Your task to perform on an android device: make emails show in primary in the gmail app Image 0: 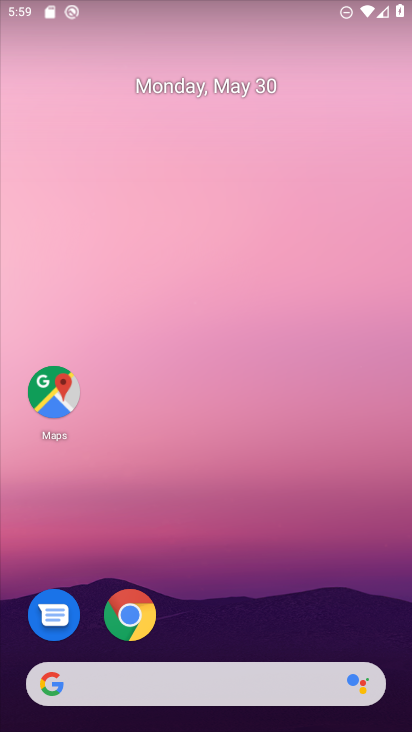
Step 0: drag from (229, 653) to (405, 258)
Your task to perform on an android device: make emails show in primary in the gmail app Image 1: 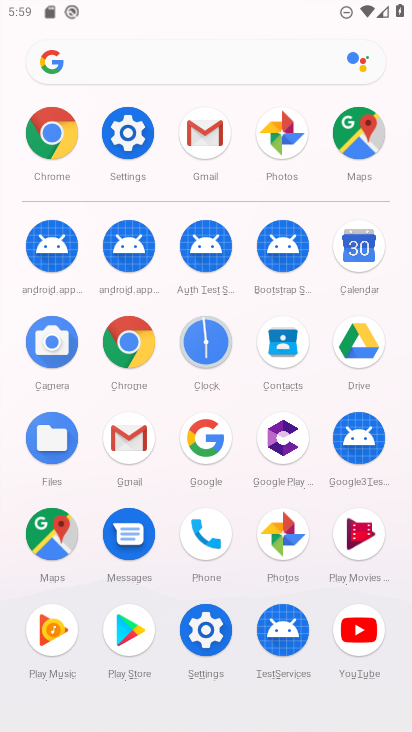
Step 1: click (207, 143)
Your task to perform on an android device: make emails show in primary in the gmail app Image 2: 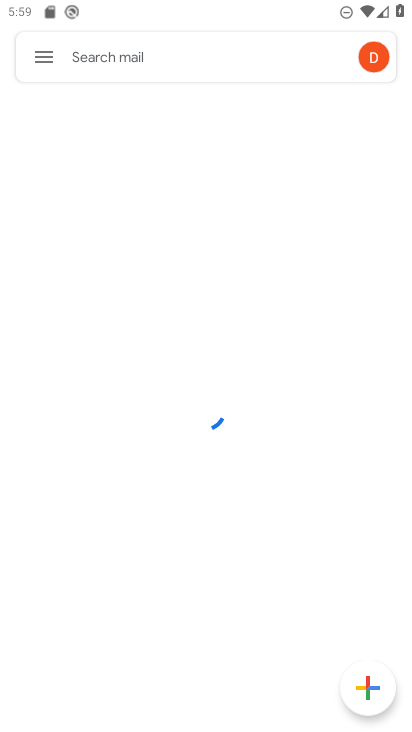
Step 2: click (50, 66)
Your task to perform on an android device: make emails show in primary in the gmail app Image 3: 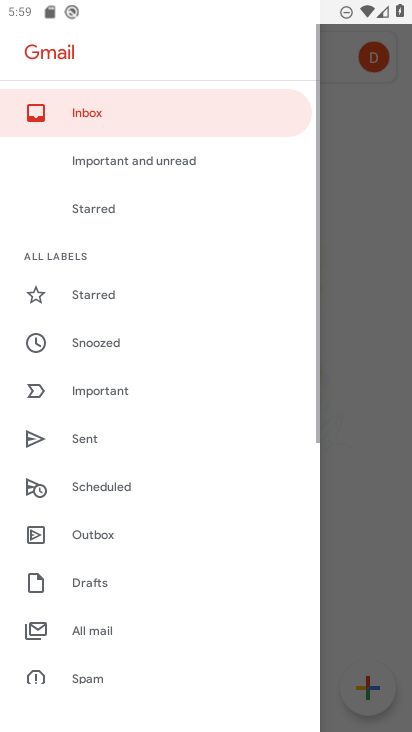
Step 3: task complete